Your task to perform on an android device: Go to Maps Image 0: 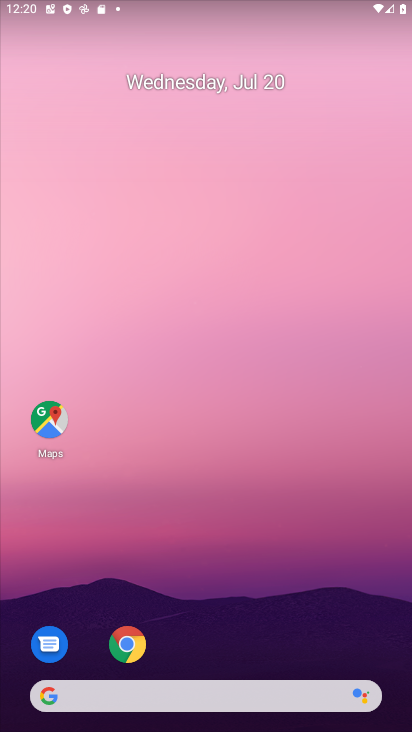
Step 0: drag from (276, 682) to (286, 214)
Your task to perform on an android device: Go to Maps Image 1: 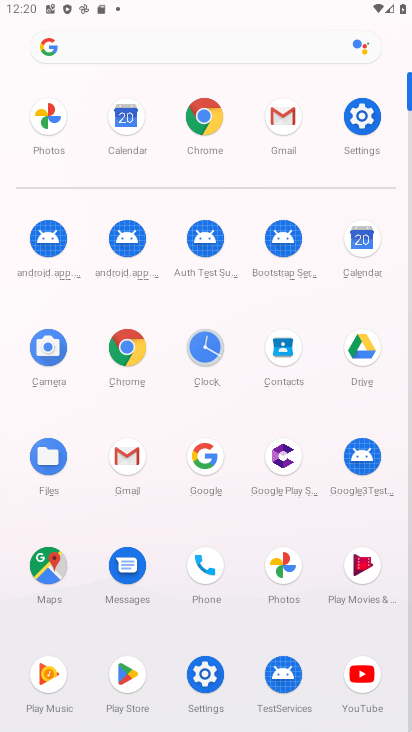
Step 1: click (36, 558)
Your task to perform on an android device: Go to Maps Image 2: 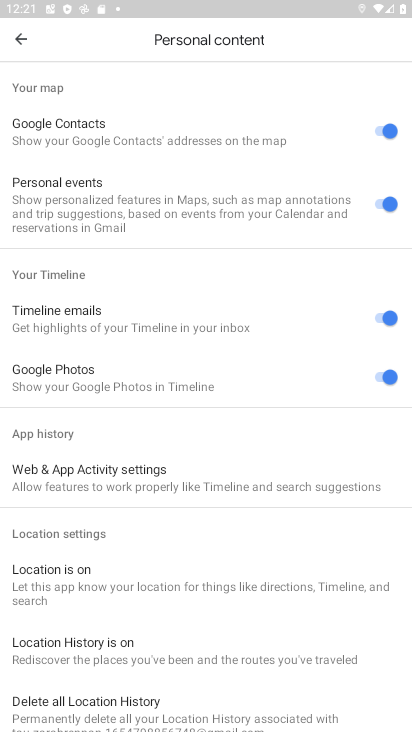
Step 2: click (26, 58)
Your task to perform on an android device: Go to Maps Image 3: 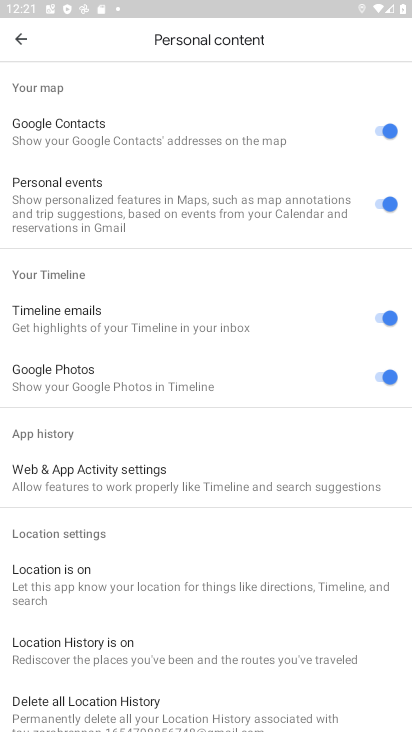
Step 3: task complete